Your task to perform on an android device: Open display settings Image 0: 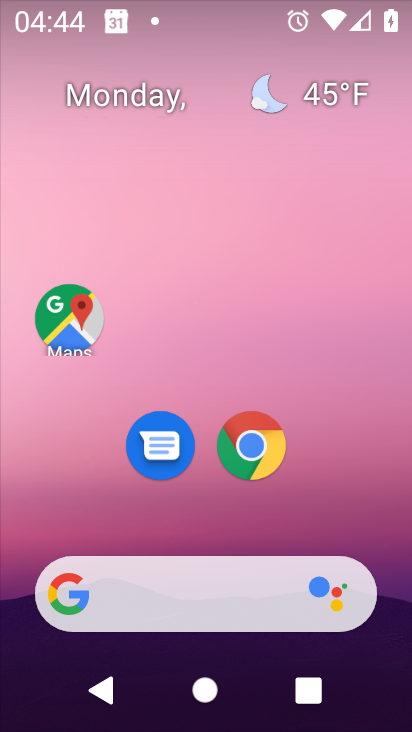
Step 0: drag from (299, 488) to (303, 2)
Your task to perform on an android device: Open display settings Image 1: 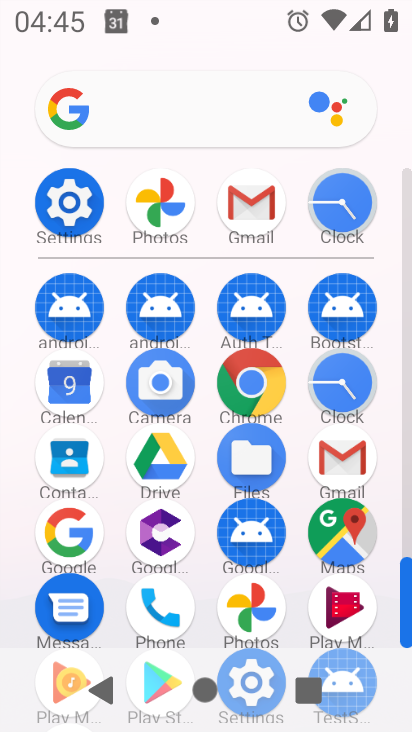
Step 1: click (70, 212)
Your task to perform on an android device: Open display settings Image 2: 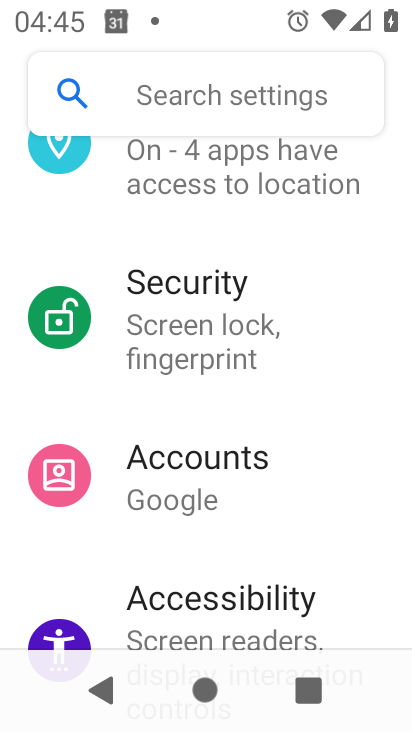
Step 2: drag from (277, 274) to (363, 580)
Your task to perform on an android device: Open display settings Image 3: 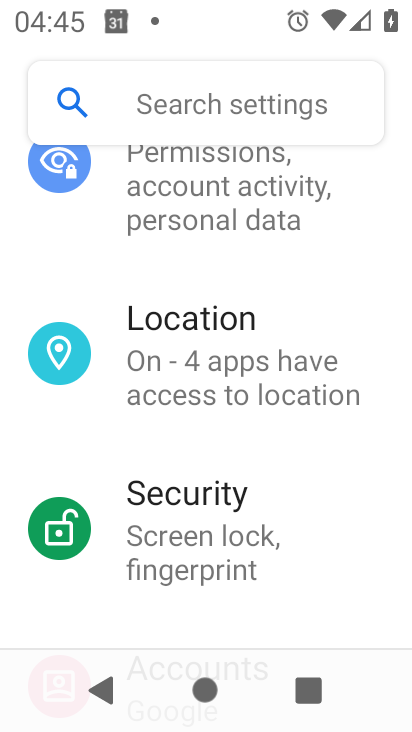
Step 3: drag from (245, 339) to (312, 656)
Your task to perform on an android device: Open display settings Image 4: 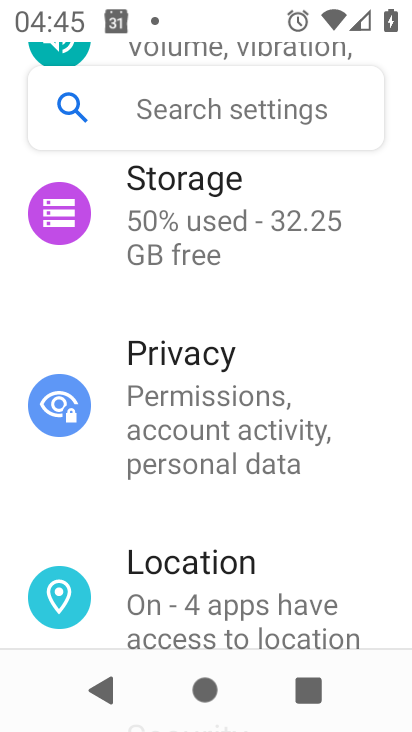
Step 4: drag from (214, 287) to (251, 632)
Your task to perform on an android device: Open display settings Image 5: 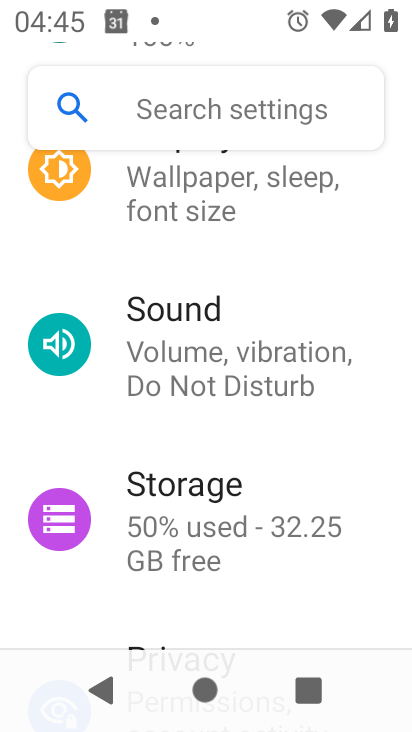
Step 5: click (192, 200)
Your task to perform on an android device: Open display settings Image 6: 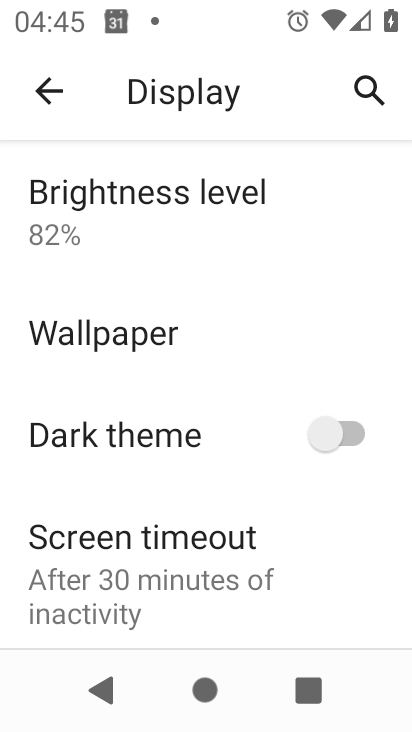
Step 6: task complete